Your task to perform on an android device: change the clock display to analog Image 0: 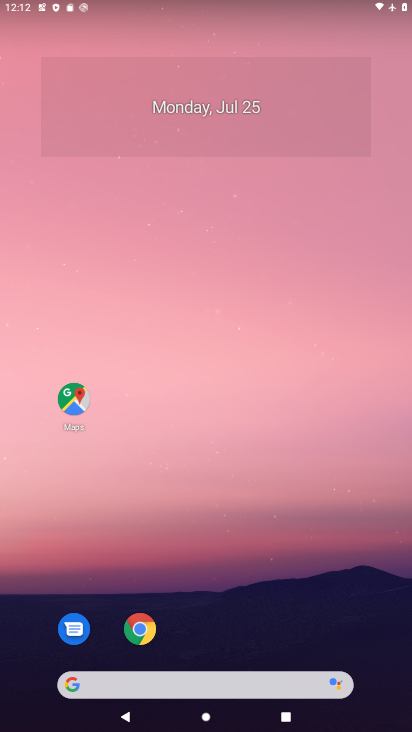
Step 0: drag from (281, 606) to (289, 114)
Your task to perform on an android device: change the clock display to analog Image 1: 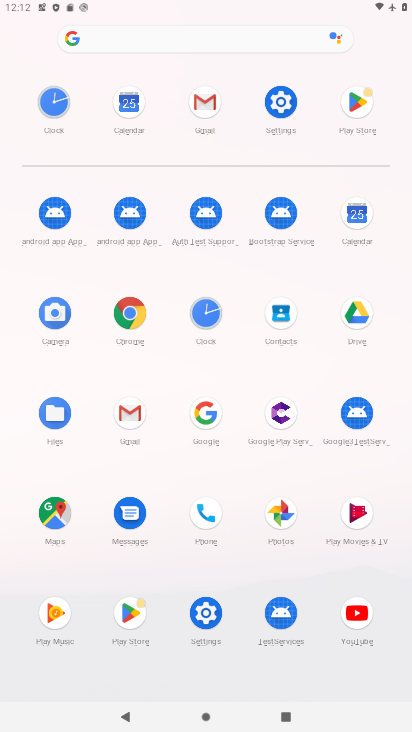
Step 1: task complete